Your task to perform on an android device: turn off javascript in the chrome app Image 0: 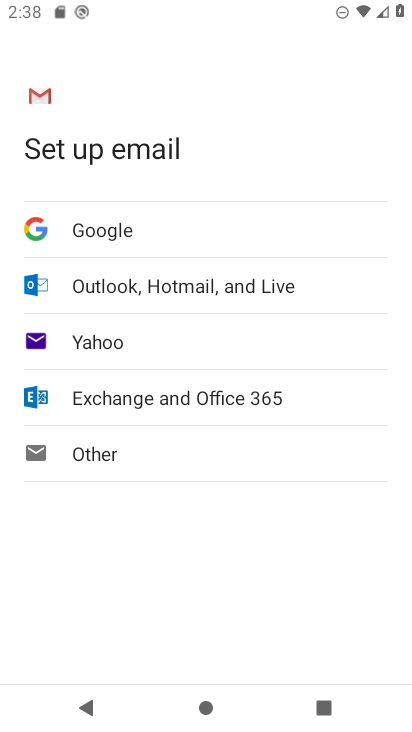
Step 0: press home button
Your task to perform on an android device: turn off javascript in the chrome app Image 1: 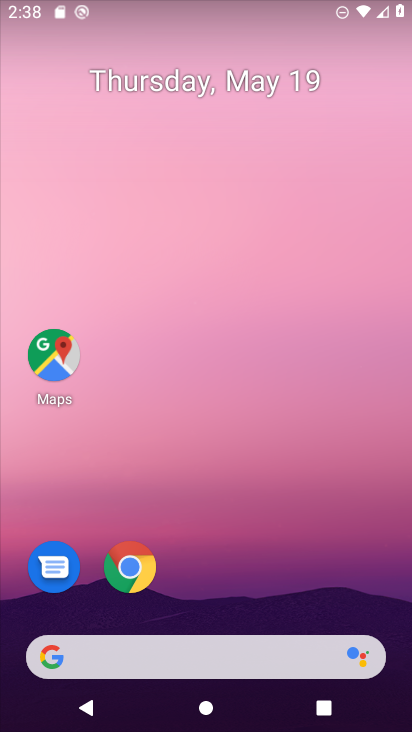
Step 1: click (141, 564)
Your task to perform on an android device: turn off javascript in the chrome app Image 2: 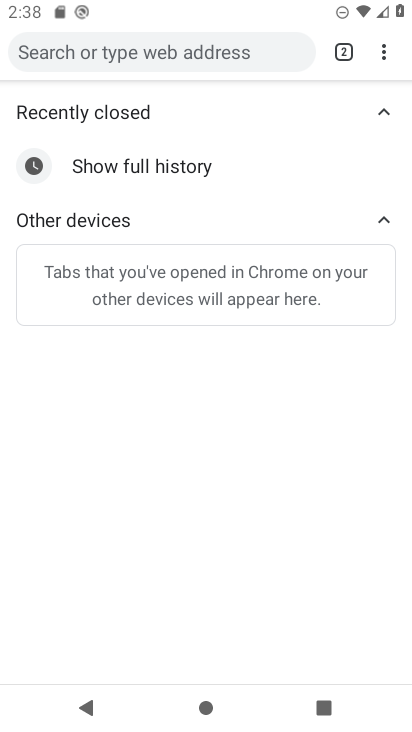
Step 2: click (384, 59)
Your task to perform on an android device: turn off javascript in the chrome app Image 3: 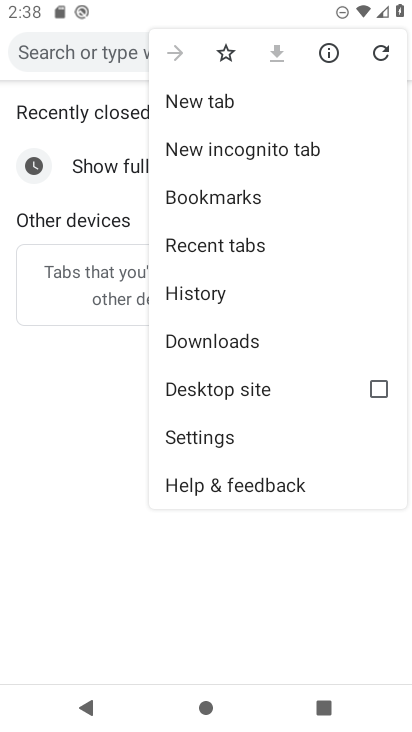
Step 3: click (230, 430)
Your task to perform on an android device: turn off javascript in the chrome app Image 4: 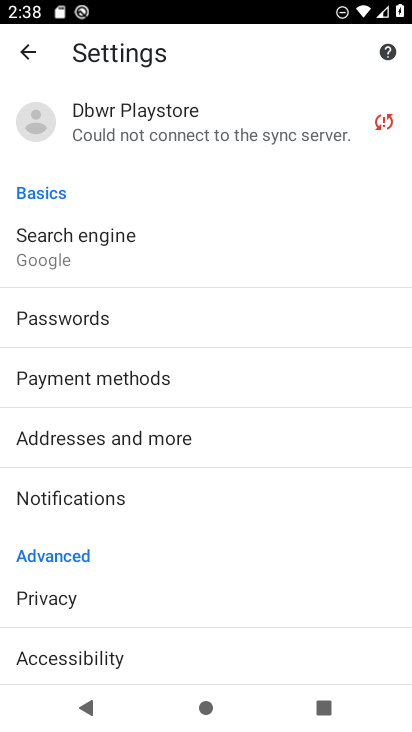
Step 4: drag from (225, 539) to (264, 191)
Your task to perform on an android device: turn off javascript in the chrome app Image 5: 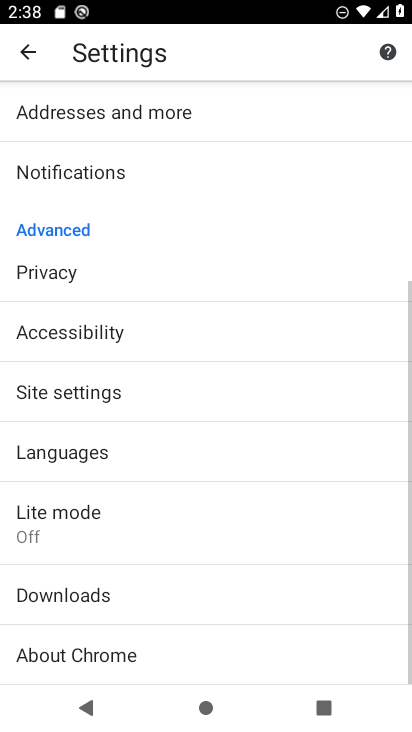
Step 5: click (192, 379)
Your task to perform on an android device: turn off javascript in the chrome app Image 6: 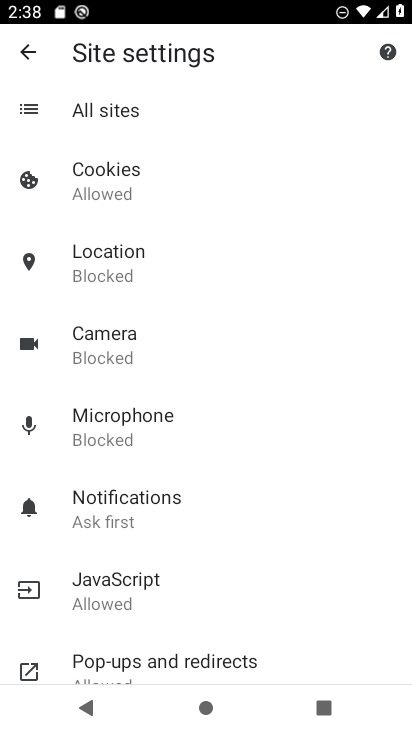
Step 6: click (181, 594)
Your task to perform on an android device: turn off javascript in the chrome app Image 7: 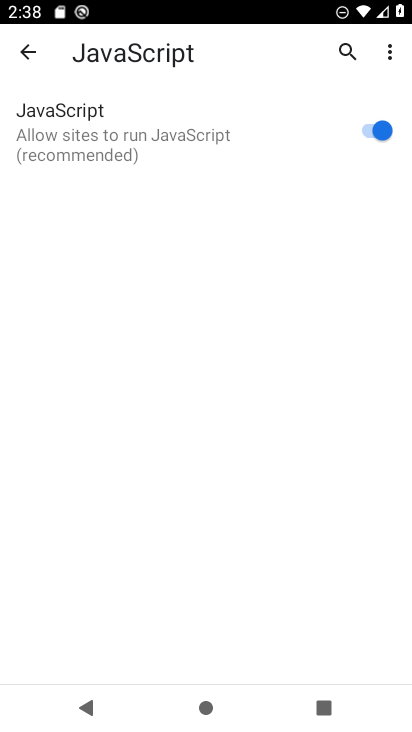
Step 7: click (366, 125)
Your task to perform on an android device: turn off javascript in the chrome app Image 8: 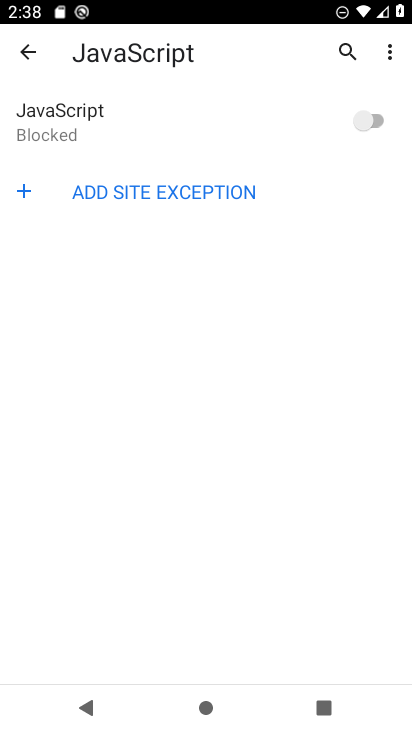
Step 8: task complete